Your task to perform on an android device: star an email in the gmail app Image 0: 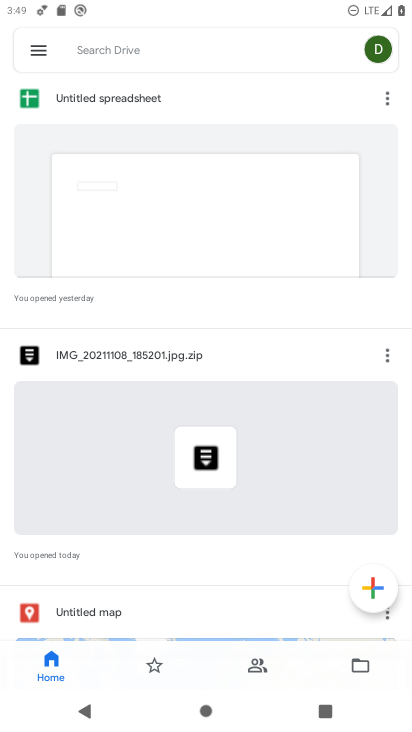
Step 0: press home button
Your task to perform on an android device: star an email in the gmail app Image 1: 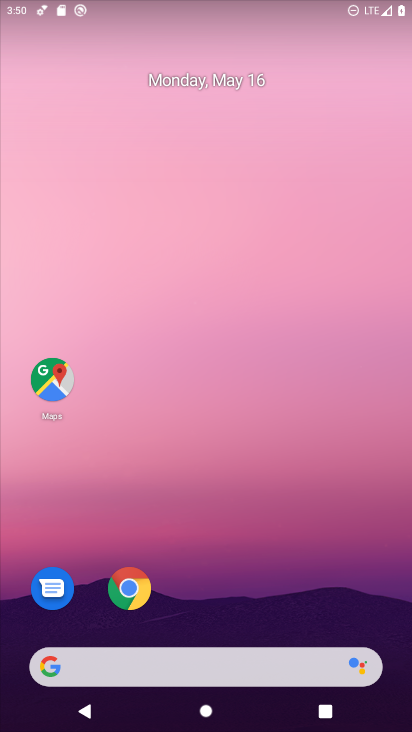
Step 1: drag from (330, 638) to (357, 17)
Your task to perform on an android device: star an email in the gmail app Image 2: 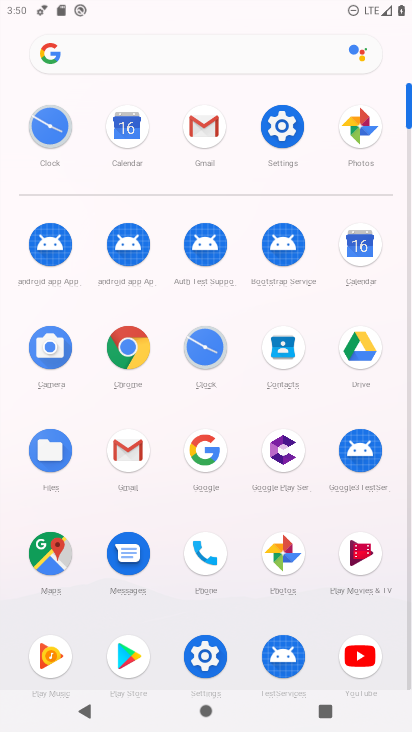
Step 2: click (205, 123)
Your task to perform on an android device: star an email in the gmail app Image 3: 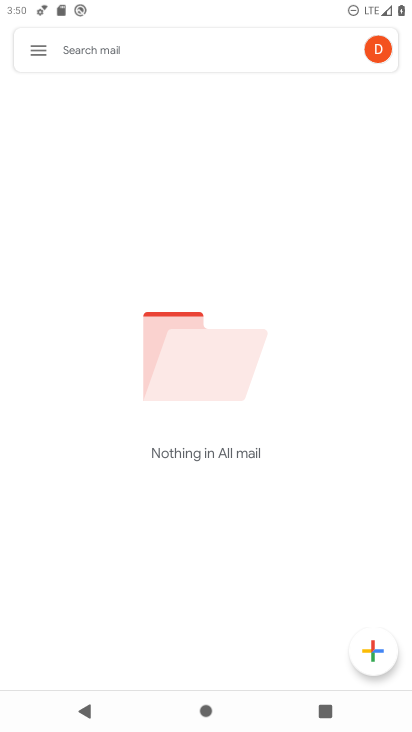
Step 3: click (34, 49)
Your task to perform on an android device: star an email in the gmail app Image 4: 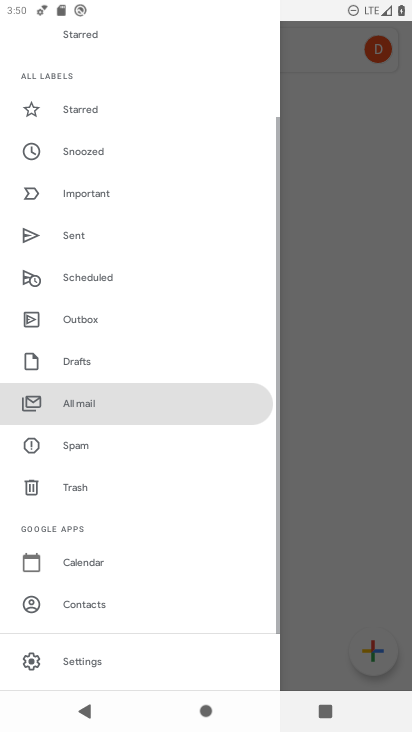
Step 4: click (132, 407)
Your task to perform on an android device: star an email in the gmail app Image 5: 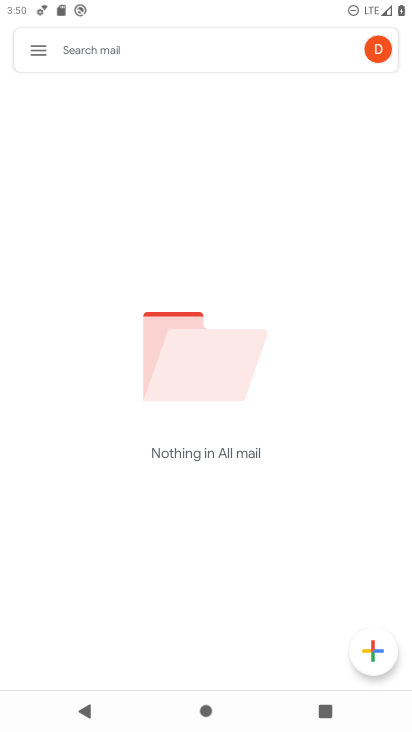
Step 5: task complete